Your task to perform on an android device: turn on wifi Image 0: 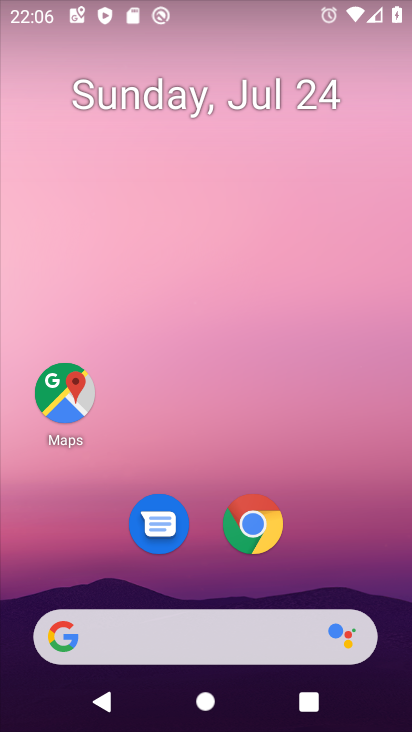
Step 0: press home button
Your task to perform on an android device: turn on wifi Image 1: 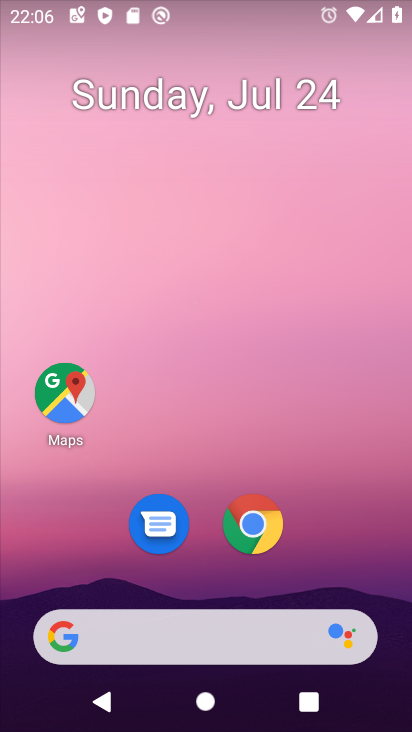
Step 1: drag from (234, 647) to (311, 27)
Your task to perform on an android device: turn on wifi Image 2: 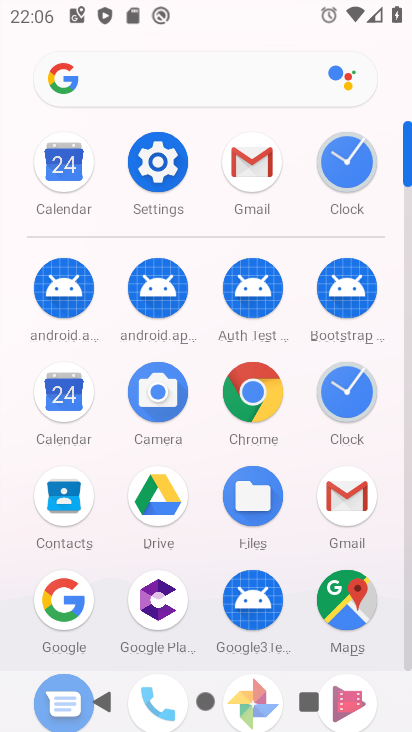
Step 2: click (169, 169)
Your task to perform on an android device: turn on wifi Image 3: 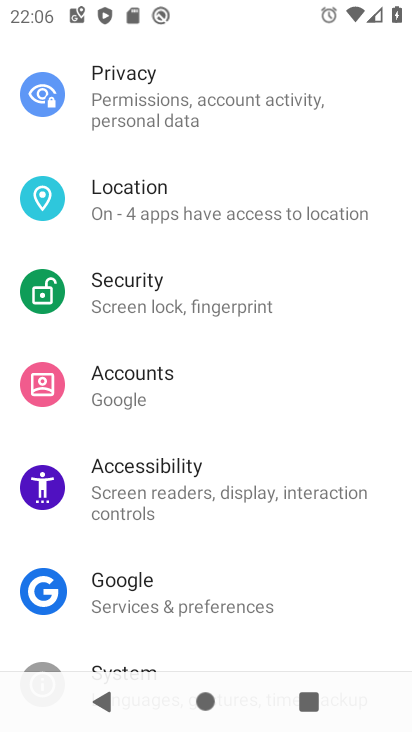
Step 3: drag from (311, 67) to (271, 486)
Your task to perform on an android device: turn on wifi Image 4: 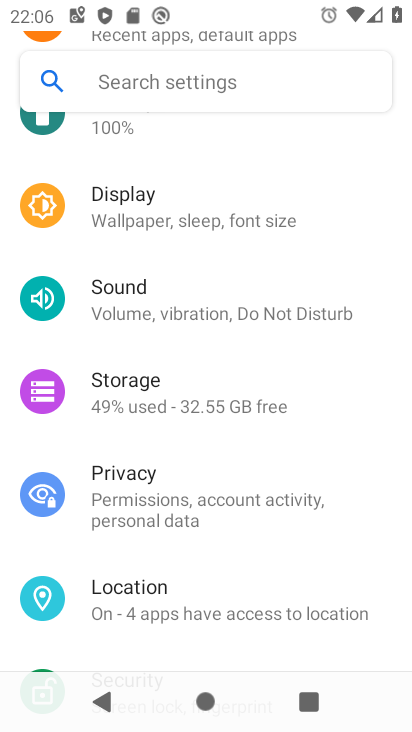
Step 4: drag from (247, 153) to (154, 633)
Your task to perform on an android device: turn on wifi Image 5: 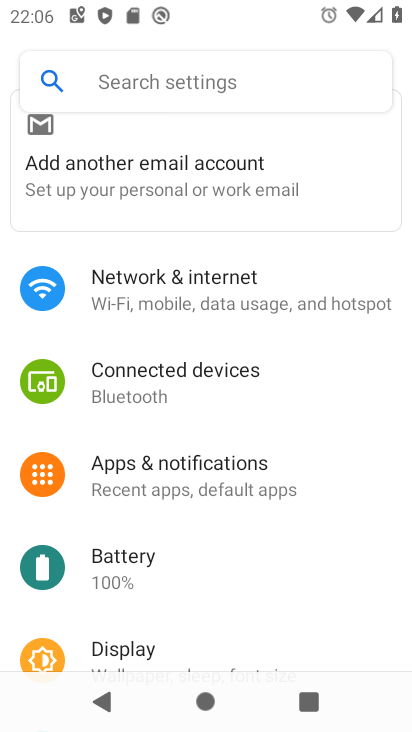
Step 5: click (191, 300)
Your task to perform on an android device: turn on wifi Image 6: 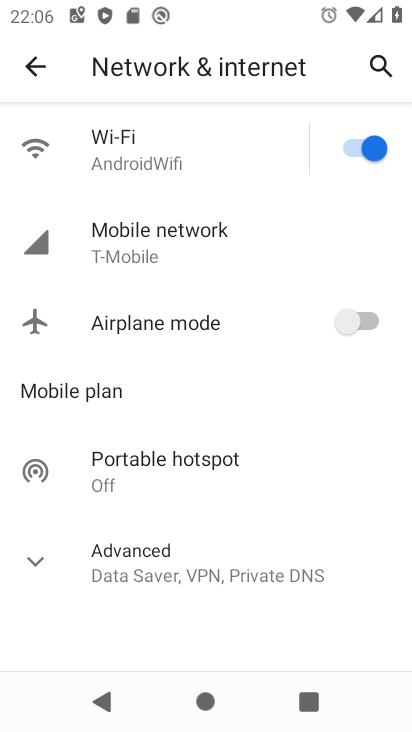
Step 6: task complete